Your task to perform on an android device: When is my next meeting? Image 0: 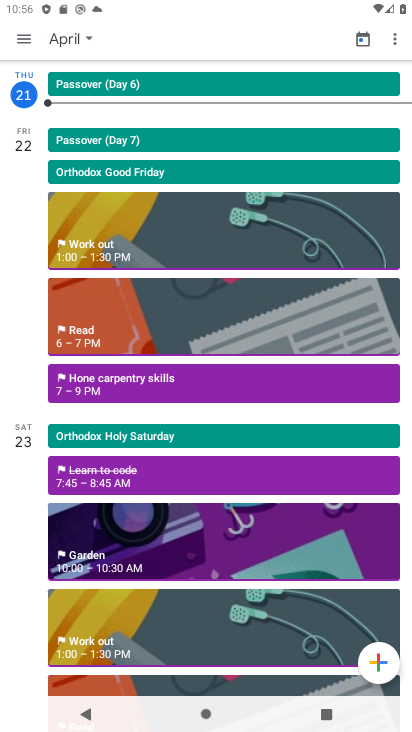
Step 0: press home button
Your task to perform on an android device: When is my next meeting? Image 1: 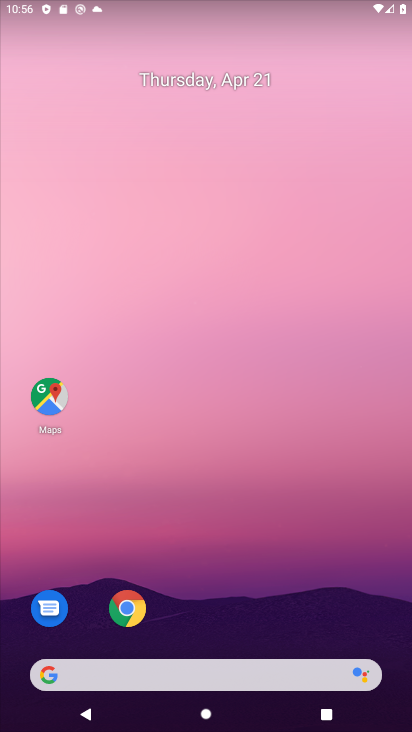
Step 1: drag from (212, 520) to (209, 33)
Your task to perform on an android device: When is my next meeting? Image 2: 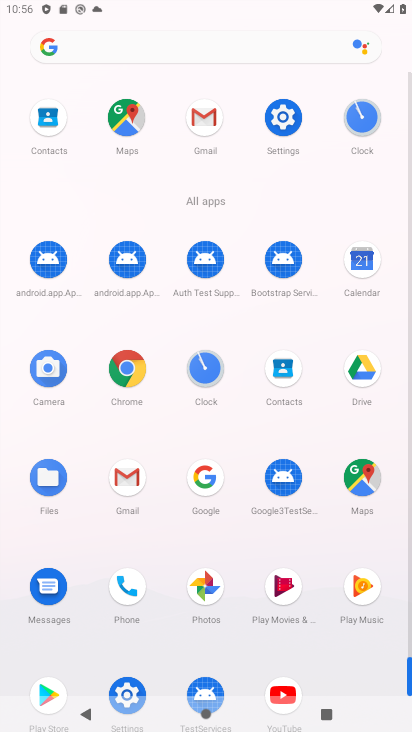
Step 2: click (361, 259)
Your task to perform on an android device: When is my next meeting? Image 3: 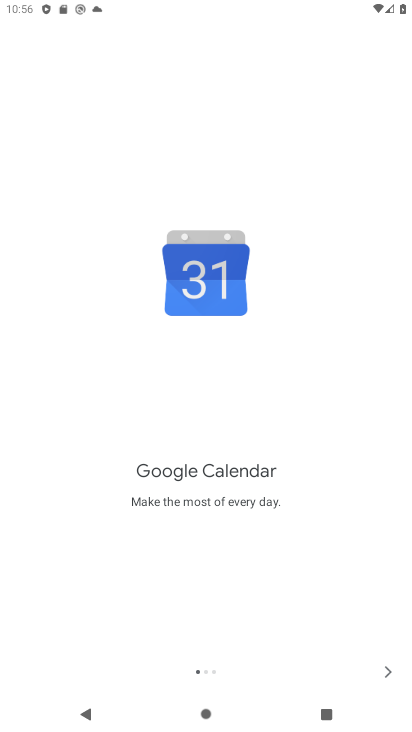
Step 3: click (388, 673)
Your task to perform on an android device: When is my next meeting? Image 4: 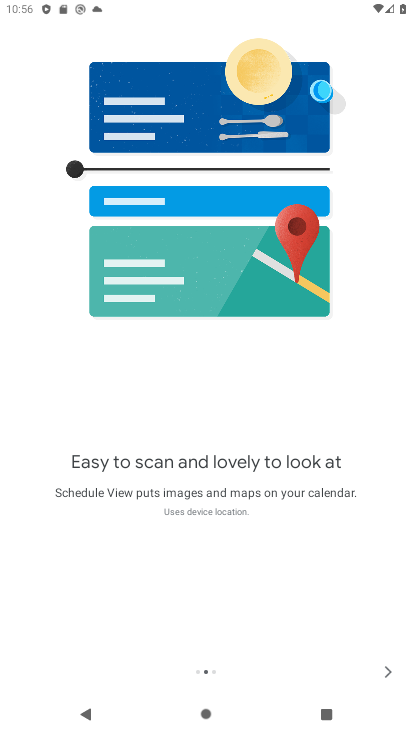
Step 4: click (388, 673)
Your task to perform on an android device: When is my next meeting? Image 5: 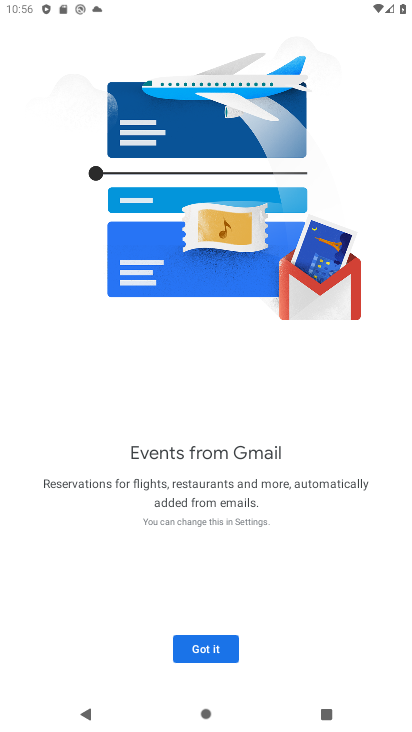
Step 5: click (210, 652)
Your task to perform on an android device: When is my next meeting? Image 6: 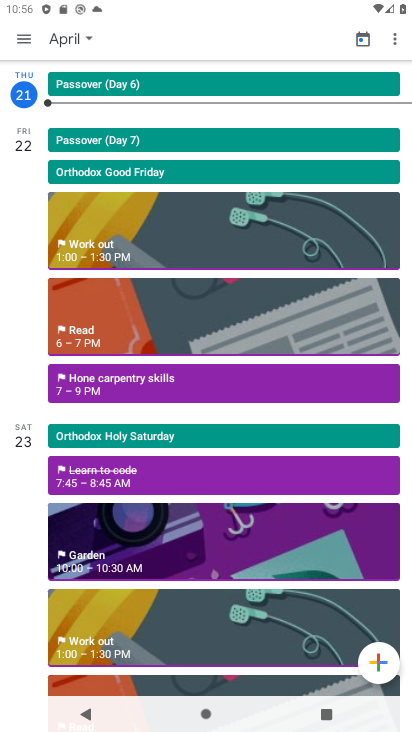
Step 6: click (88, 35)
Your task to perform on an android device: When is my next meeting? Image 7: 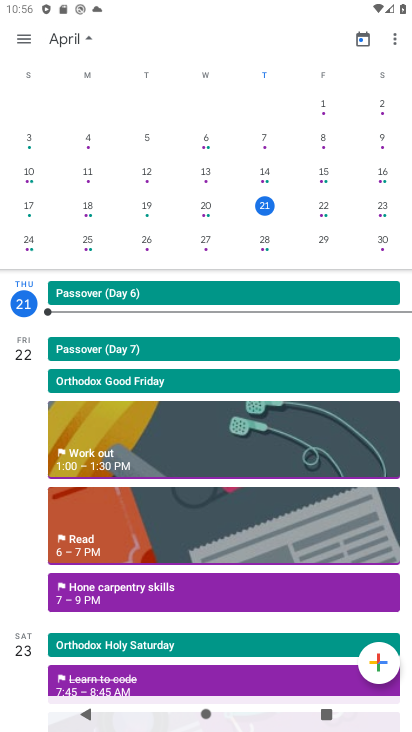
Step 7: click (323, 210)
Your task to perform on an android device: When is my next meeting? Image 8: 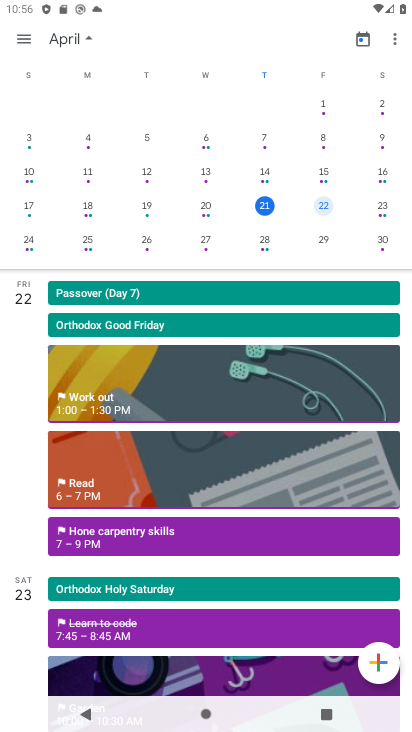
Step 8: task complete